Your task to perform on an android device: toggle javascript in the chrome app Image 0: 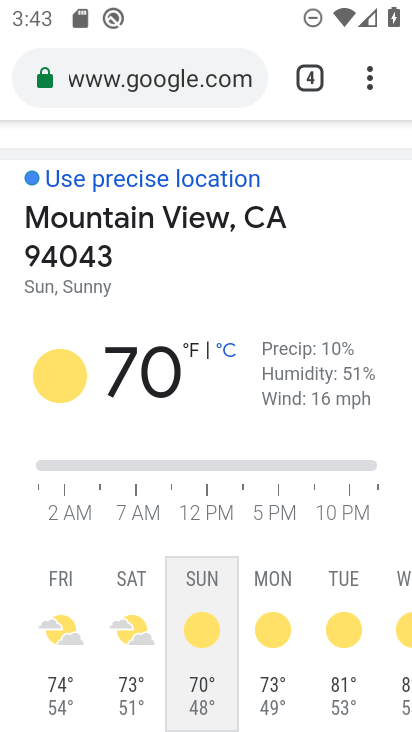
Step 0: press home button
Your task to perform on an android device: toggle javascript in the chrome app Image 1: 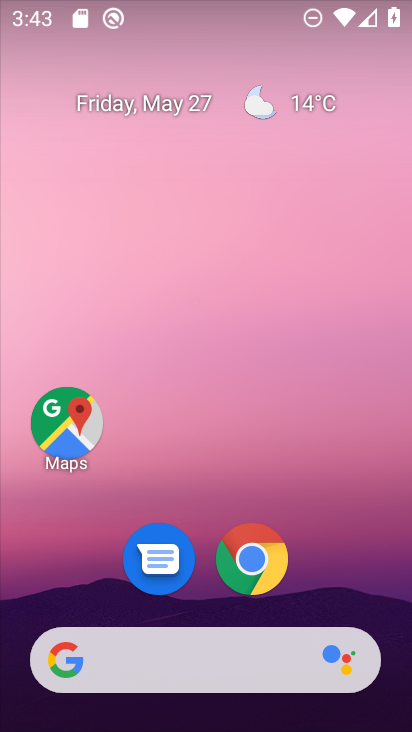
Step 1: drag from (340, 556) to (223, 38)
Your task to perform on an android device: toggle javascript in the chrome app Image 2: 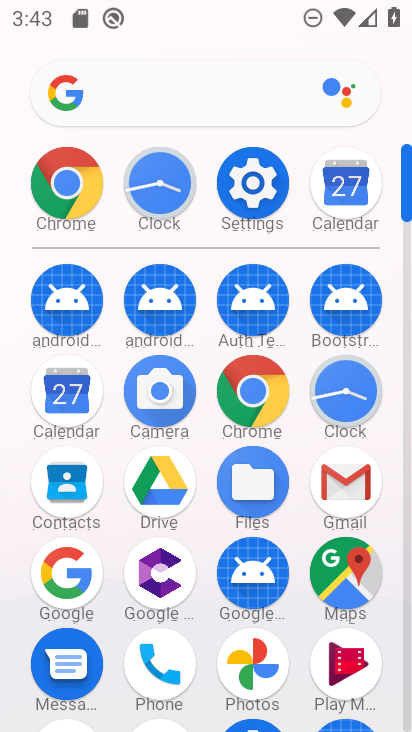
Step 2: click (73, 187)
Your task to perform on an android device: toggle javascript in the chrome app Image 3: 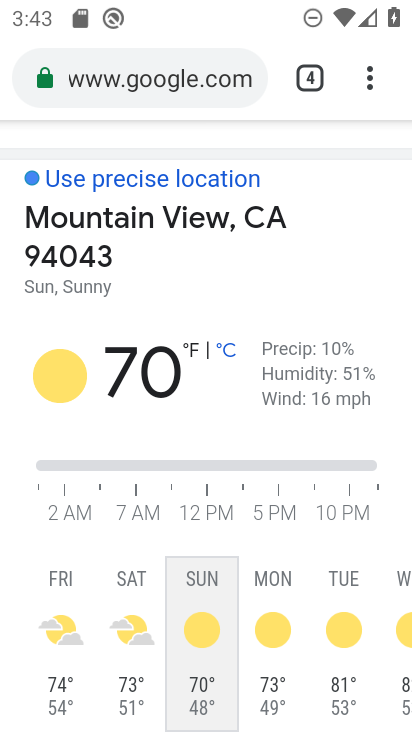
Step 3: click (361, 88)
Your task to perform on an android device: toggle javascript in the chrome app Image 4: 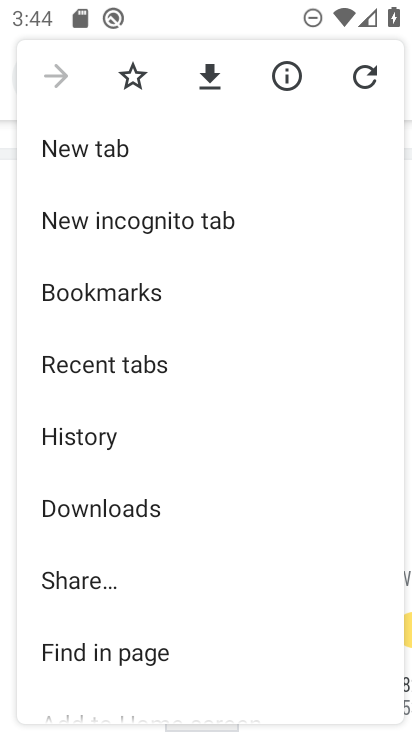
Step 4: drag from (248, 579) to (283, 140)
Your task to perform on an android device: toggle javascript in the chrome app Image 5: 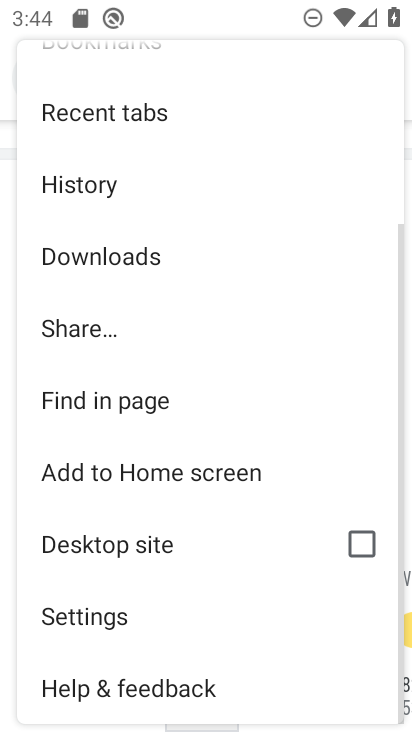
Step 5: click (84, 614)
Your task to perform on an android device: toggle javascript in the chrome app Image 6: 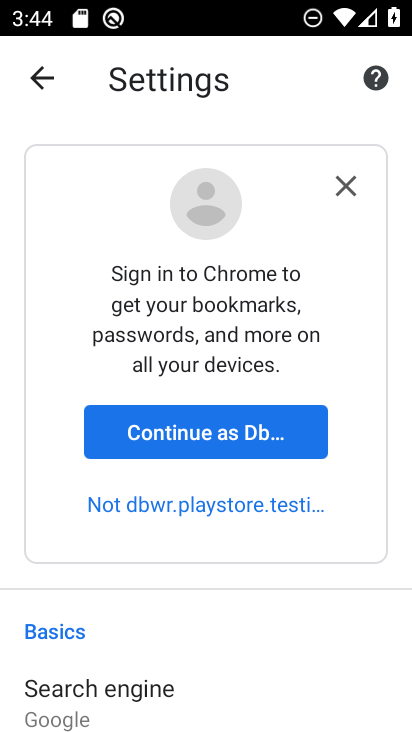
Step 6: drag from (277, 687) to (330, 210)
Your task to perform on an android device: toggle javascript in the chrome app Image 7: 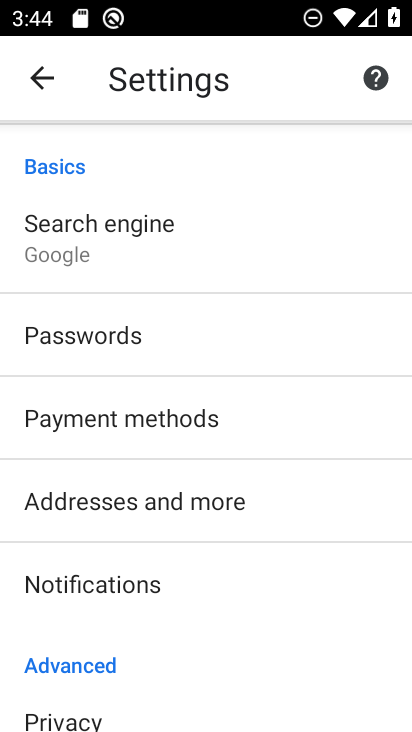
Step 7: drag from (284, 598) to (302, 145)
Your task to perform on an android device: toggle javascript in the chrome app Image 8: 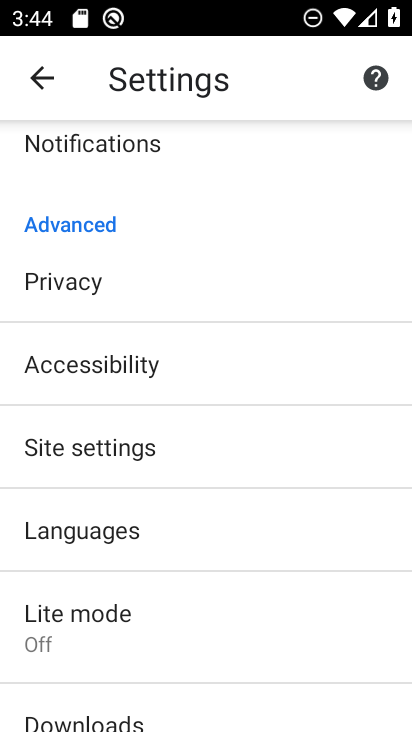
Step 8: click (187, 452)
Your task to perform on an android device: toggle javascript in the chrome app Image 9: 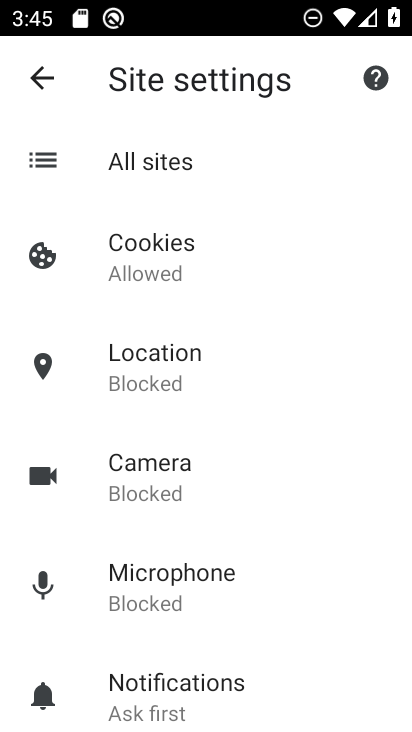
Step 9: drag from (309, 656) to (266, 126)
Your task to perform on an android device: toggle javascript in the chrome app Image 10: 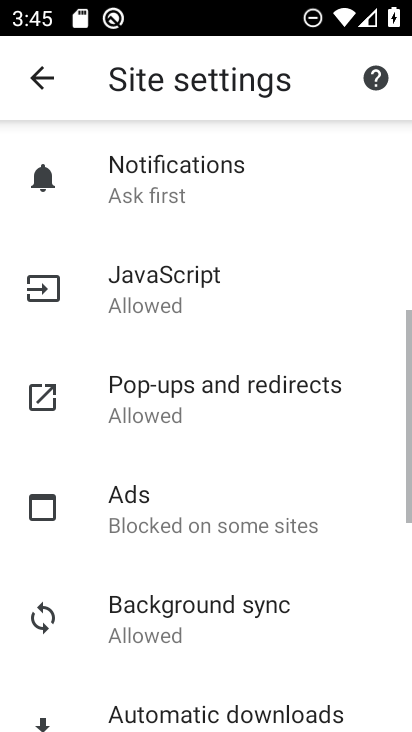
Step 10: drag from (260, 680) to (233, 510)
Your task to perform on an android device: toggle javascript in the chrome app Image 11: 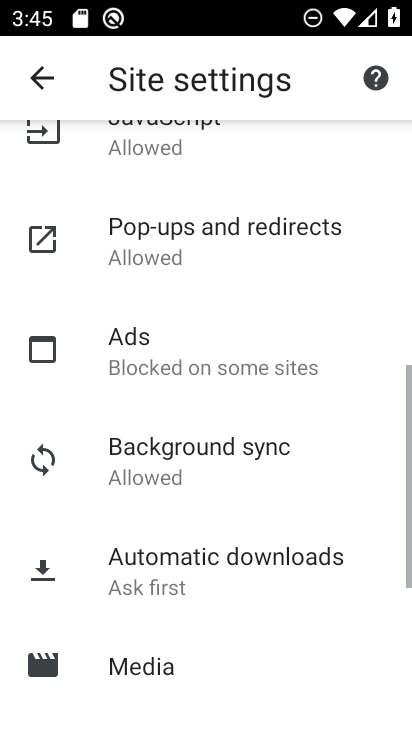
Step 11: drag from (260, 317) to (265, 463)
Your task to perform on an android device: toggle javascript in the chrome app Image 12: 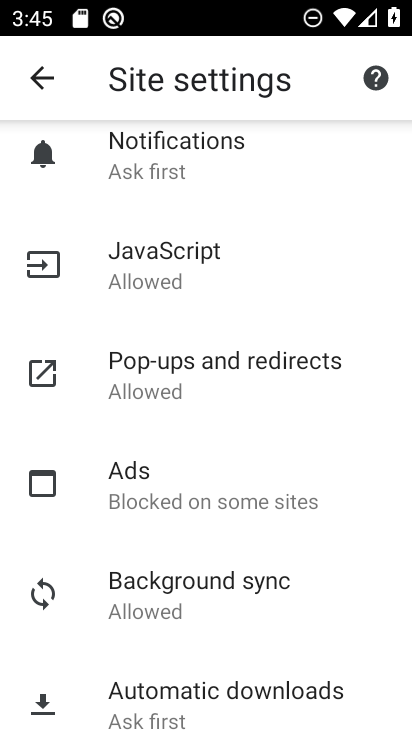
Step 12: click (184, 262)
Your task to perform on an android device: toggle javascript in the chrome app Image 13: 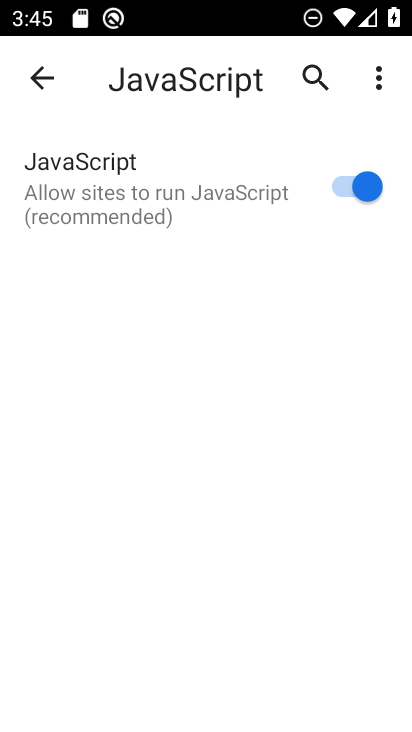
Step 13: click (366, 193)
Your task to perform on an android device: toggle javascript in the chrome app Image 14: 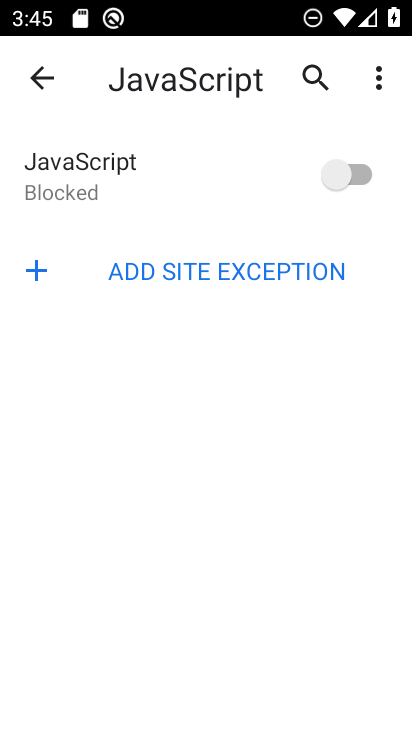
Step 14: task complete